Your task to perform on an android device: Open Youtube and go to "Your channel" Image 0: 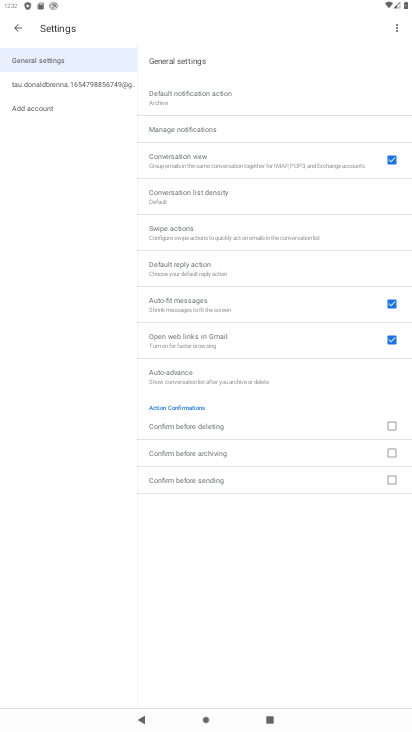
Step 0: press home button
Your task to perform on an android device: Open Youtube and go to "Your channel" Image 1: 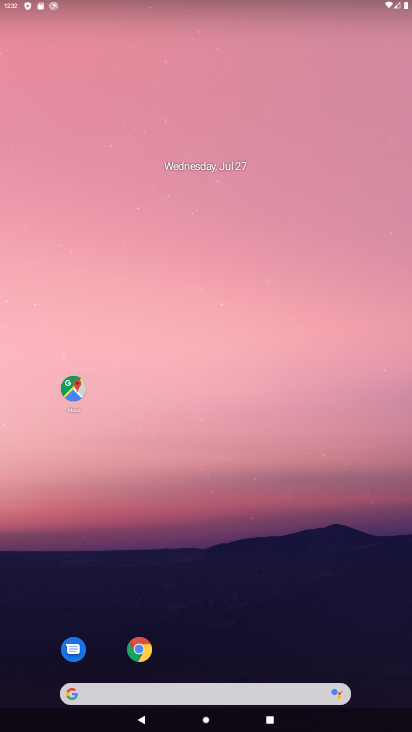
Step 1: drag from (230, 585) to (230, 67)
Your task to perform on an android device: Open Youtube and go to "Your channel" Image 2: 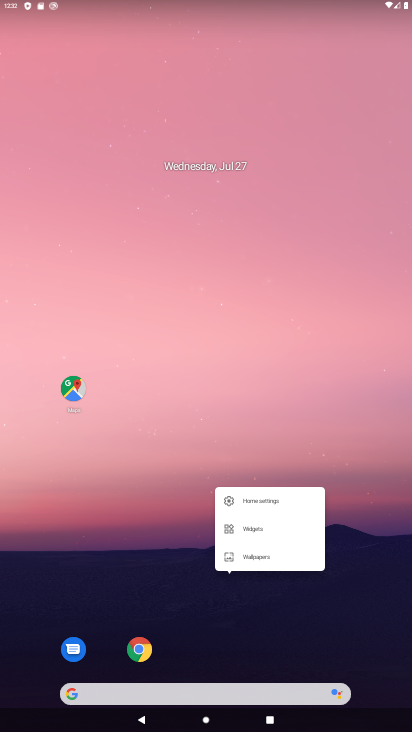
Step 2: click (320, 609)
Your task to perform on an android device: Open Youtube and go to "Your channel" Image 3: 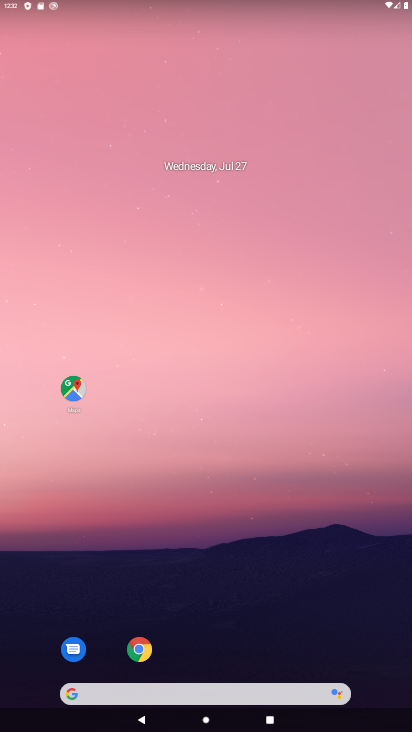
Step 3: drag from (320, 609) to (347, 197)
Your task to perform on an android device: Open Youtube and go to "Your channel" Image 4: 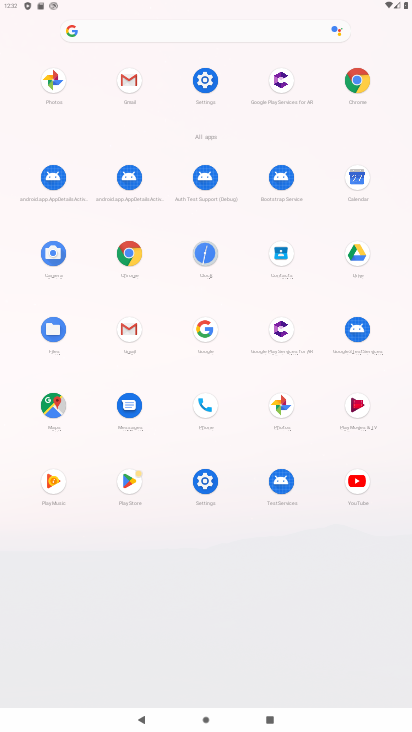
Step 4: click (362, 472)
Your task to perform on an android device: Open Youtube and go to "Your channel" Image 5: 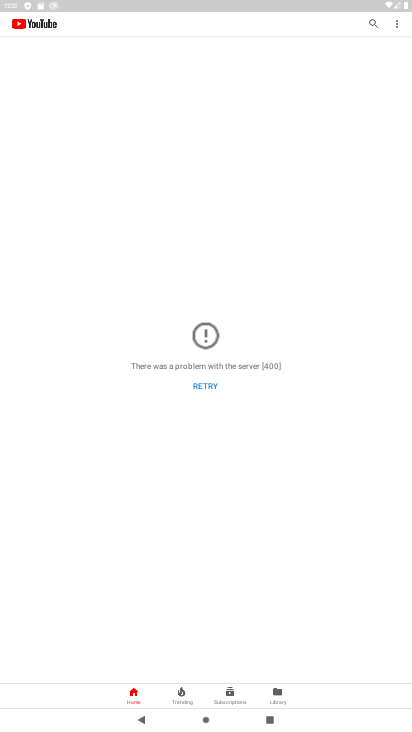
Step 5: click (209, 386)
Your task to perform on an android device: Open Youtube and go to "Your channel" Image 6: 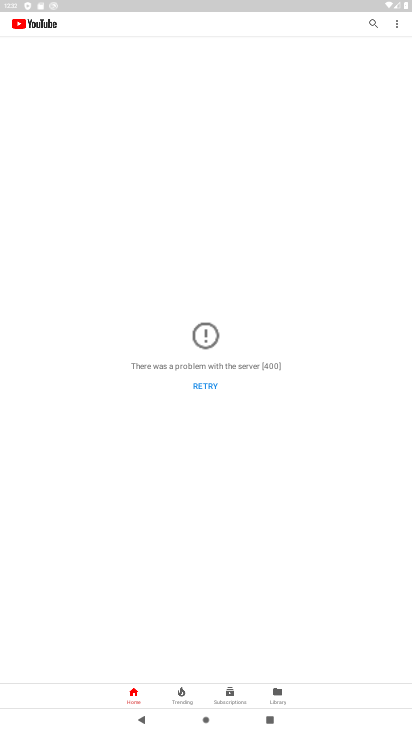
Step 6: task complete